Your task to perform on an android device: Look up the best selling books on Goodreads. Image 0: 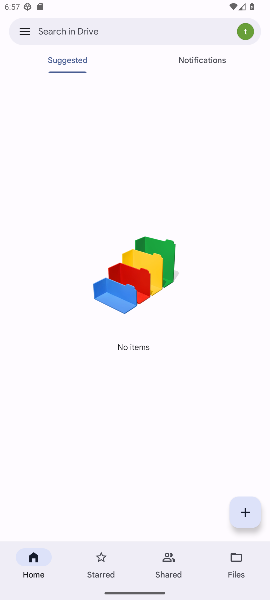
Step 0: press home button
Your task to perform on an android device: Look up the best selling books on Goodreads. Image 1: 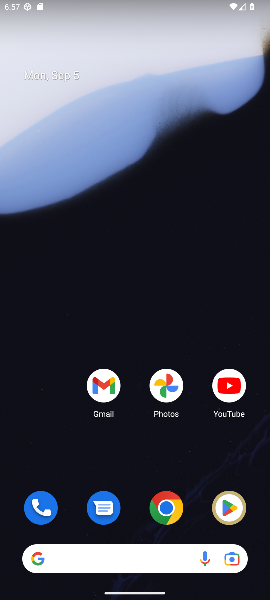
Step 1: click (169, 505)
Your task to perform on an android device: Look up the best selling books on Goodreads. Image 2: 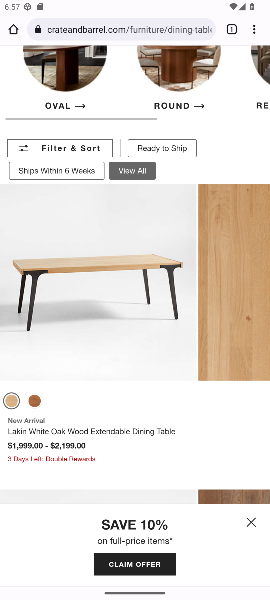
Step 2: click (138, 28)
Your task to perform on an android device: Look up the best selling books on Goodreads. Image 3: 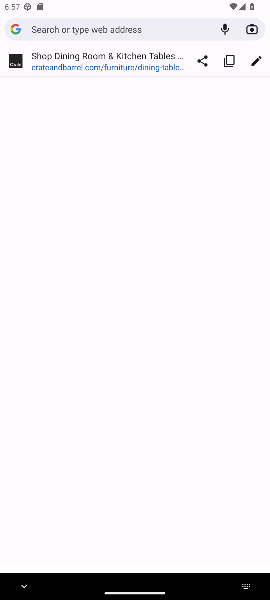
Step 3: type "Goodreads."
Your task to perform on an android device: Look up the best selling books on Goodreads. Image 4: 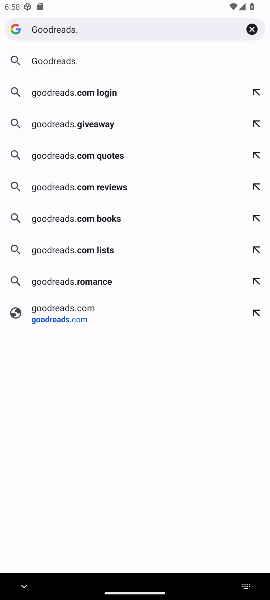
Step 4: click (53, 61)
Your task to perform on an android device: Look up the best selling books on Goodreads. Image 5: 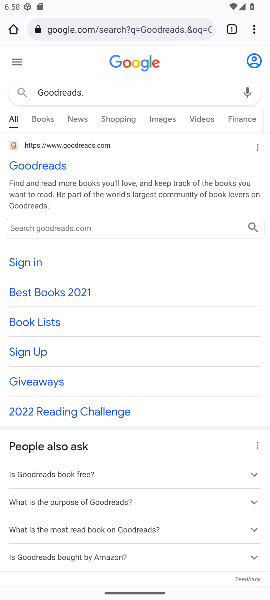
Step 5: click (28, 171)
Your task to perform on an android device: Look up the best selling books on Goodreads. Image 6: 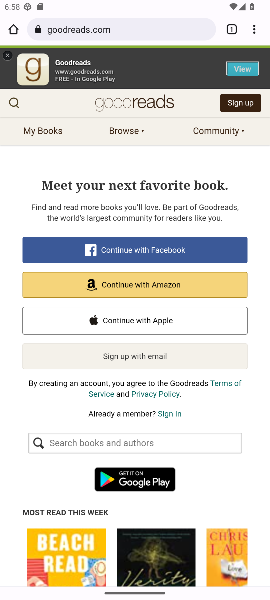
Step 6: click (15, 108)
Your task to perform on an android device: Look up the best selling books on Goodreads. Image 7: 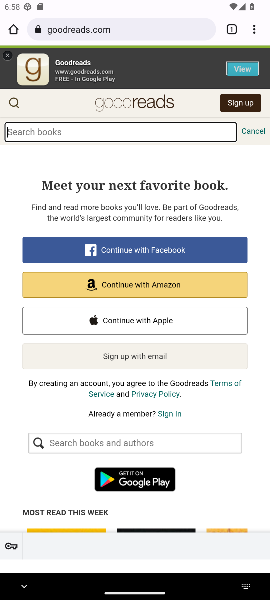
Step 7: type "best selling books "
Your task to perform on an android device: Look up the best selling books on Goodreads. Image 8: 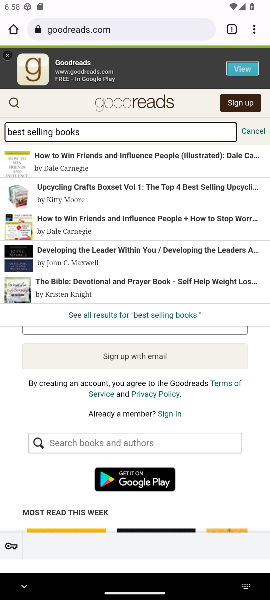
Step 8: task complete